Your task to perform on an android device: install app "eBay: The shopping marketplace" Image 0: 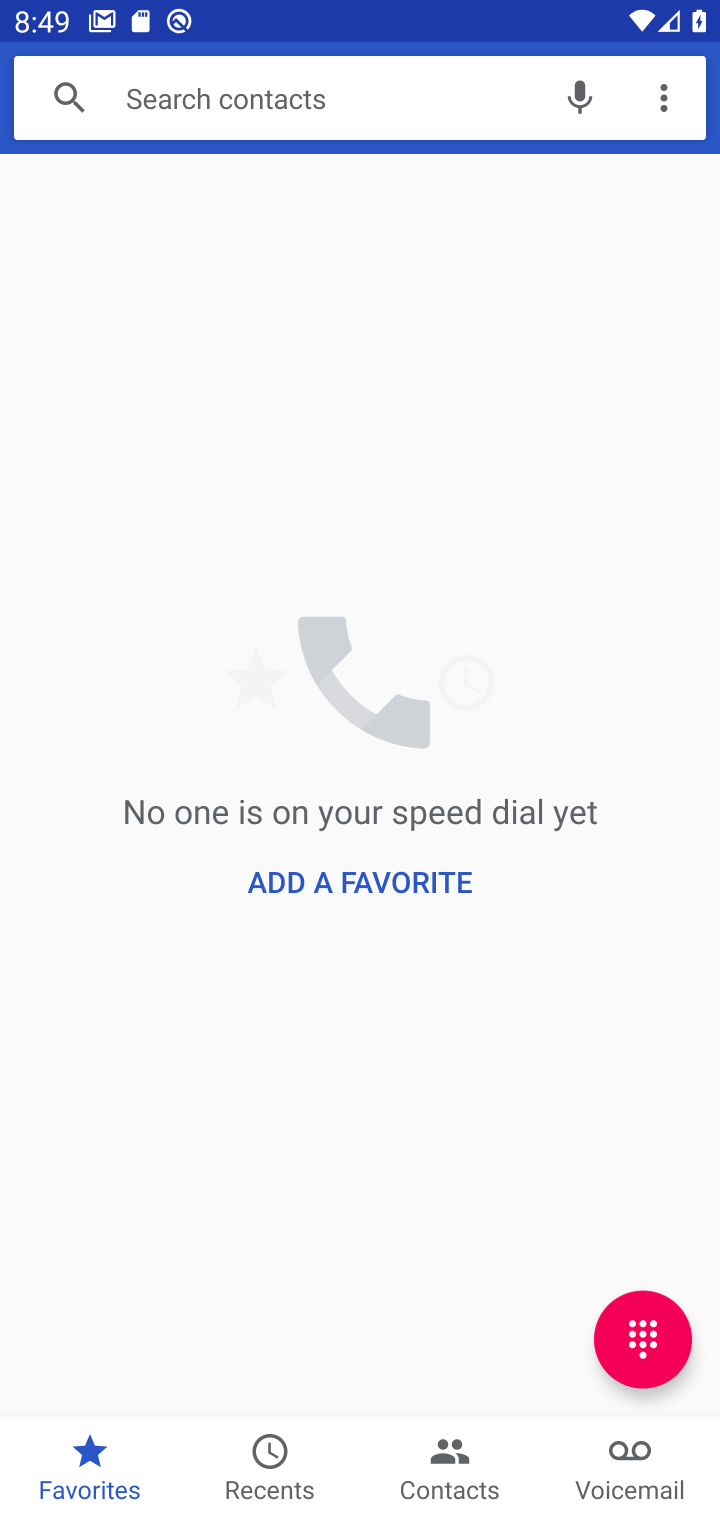
Step 0: press home button
Your task to perform on an android device: install app "eBay: The shopping marketplace" Image 1: 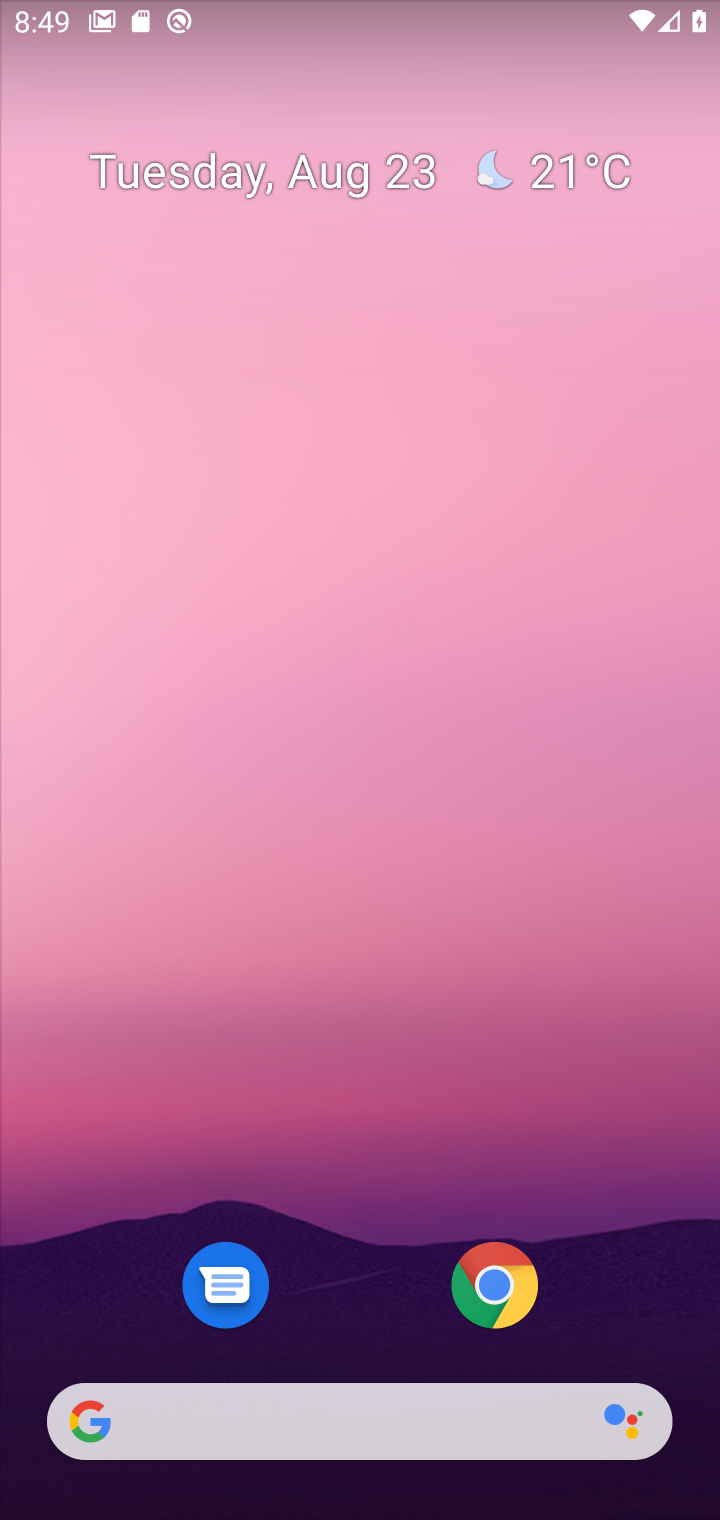
Step 1: drag from (651, 1324) to (559, 217)
Your task to perform on an android device: install app "eBay: The shopping marketplace" Image 2: 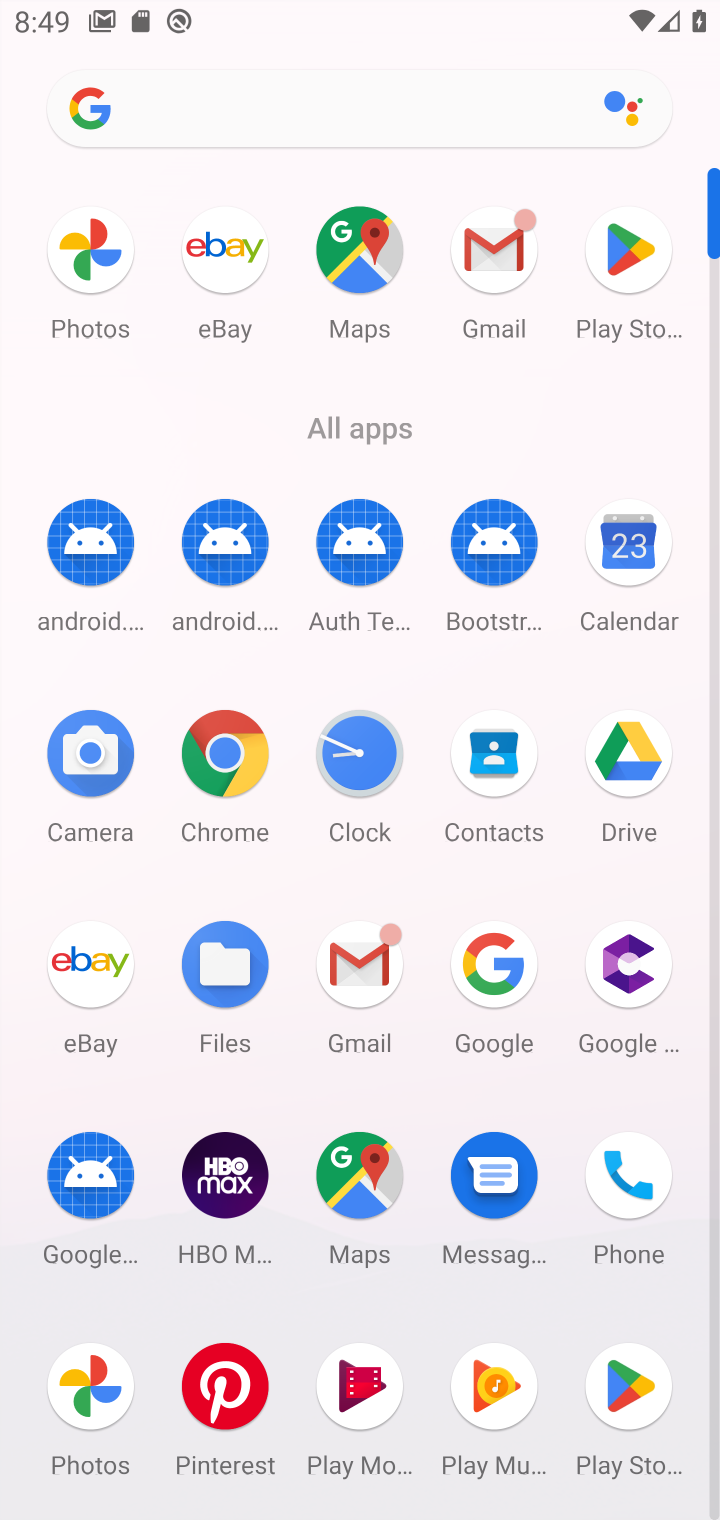
Step 2: click (630, 1383)
Your task to perform on an android device: install app "eBay: The shopping marketplace" Image 3: 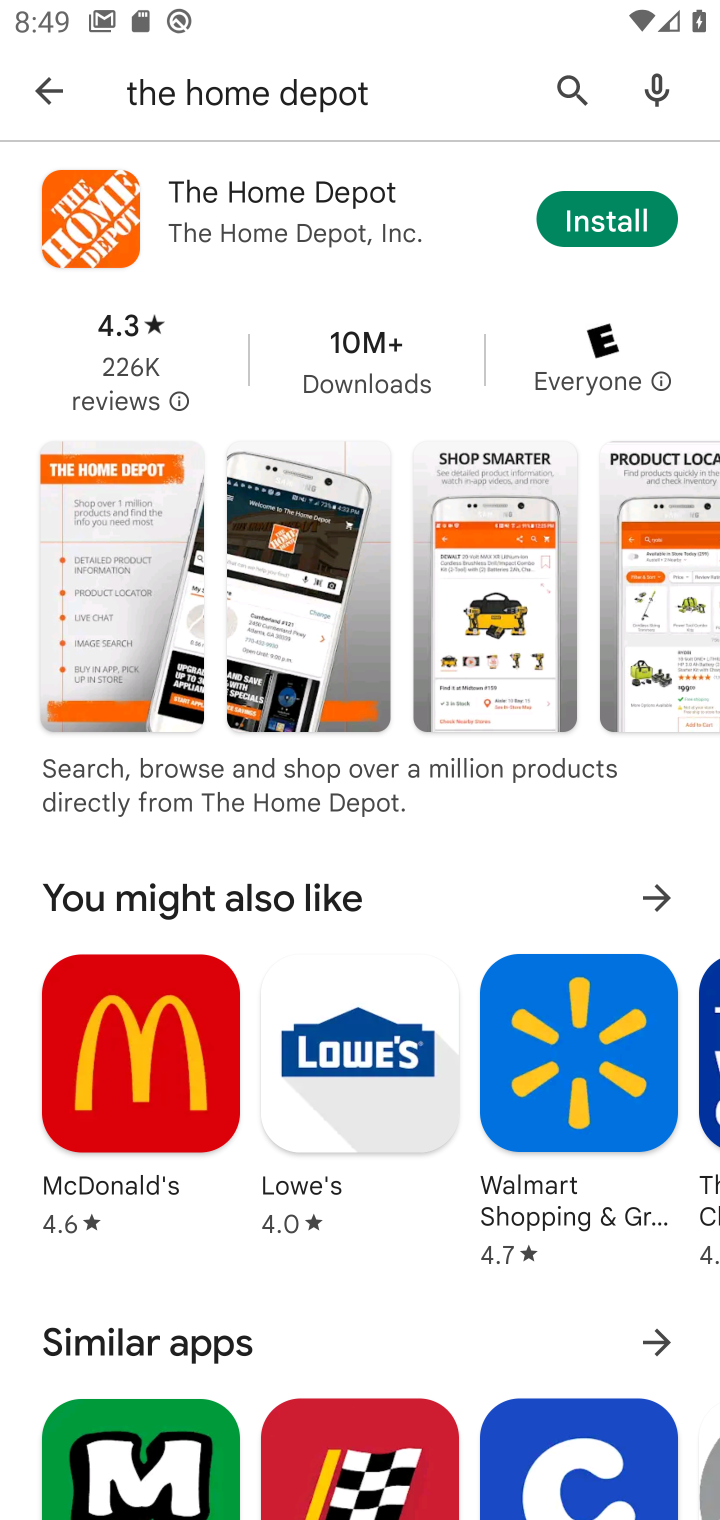
Step 3: click (566, 82)
Your task to perform on an android device: install app "eBay: The shopping marketplace" Image 4: 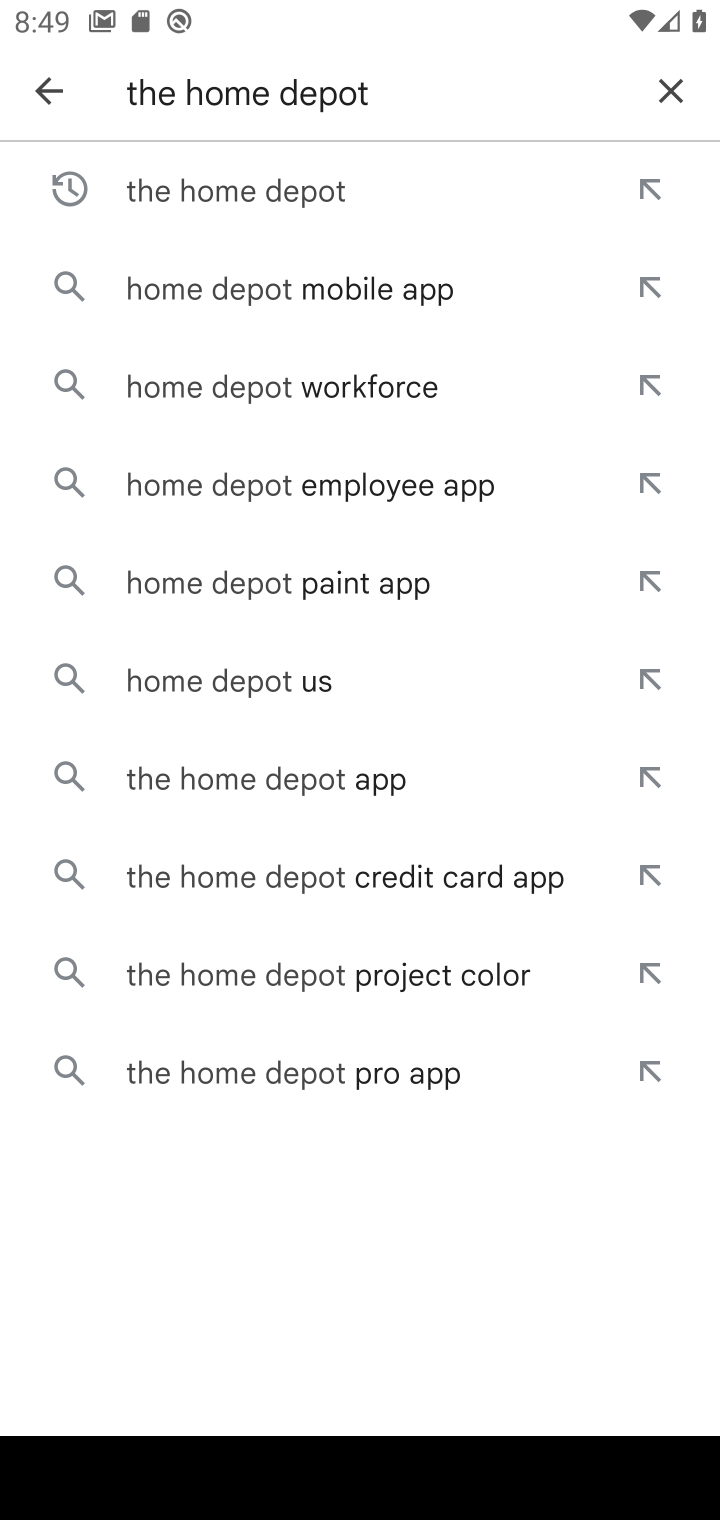
Step 4: click (669, 78)
Your task to perform on an android device: install app "eBay: The shopping marketplace" Image 5: 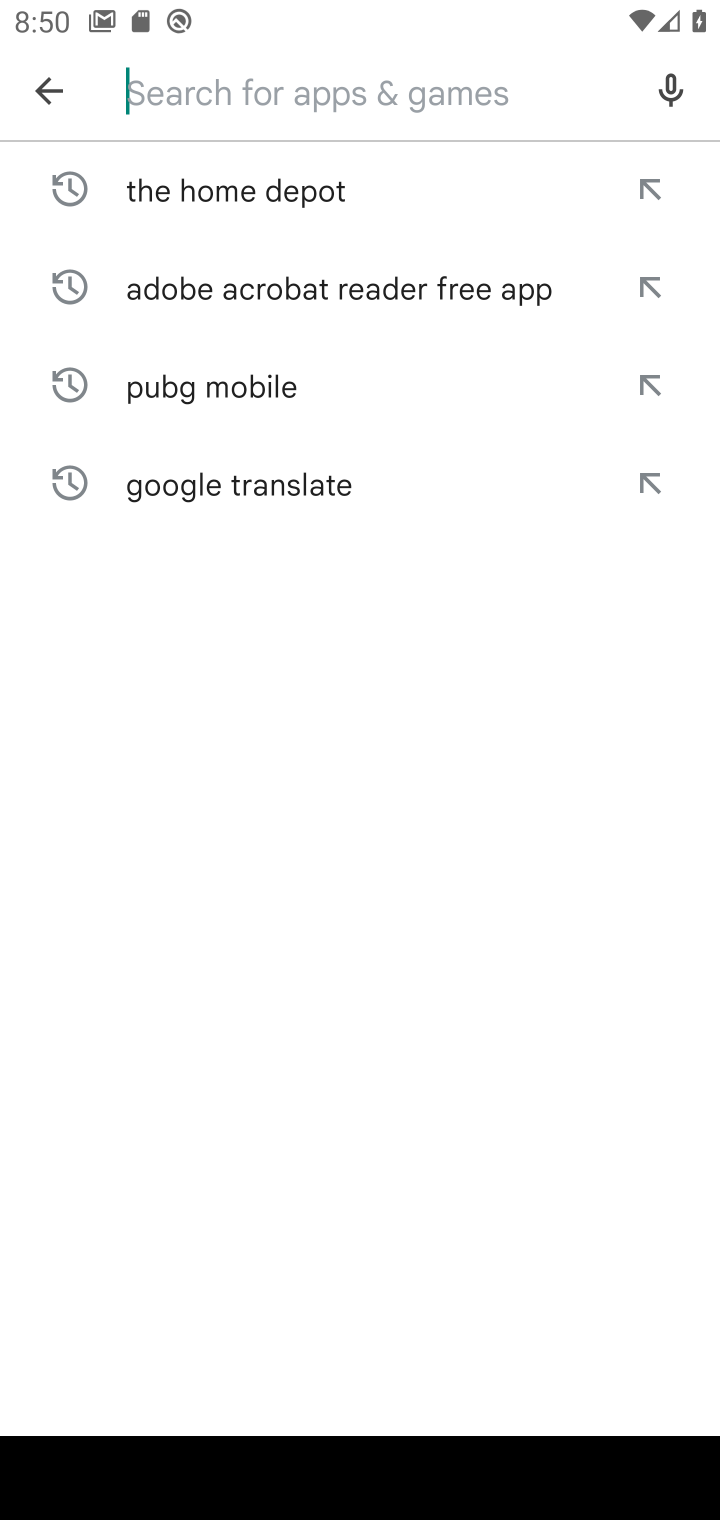
Step 5: type "eBay: The shopping marketplace"
Your task to perform on an android device: install app "eBay: The shopping marketplace" Image 6: 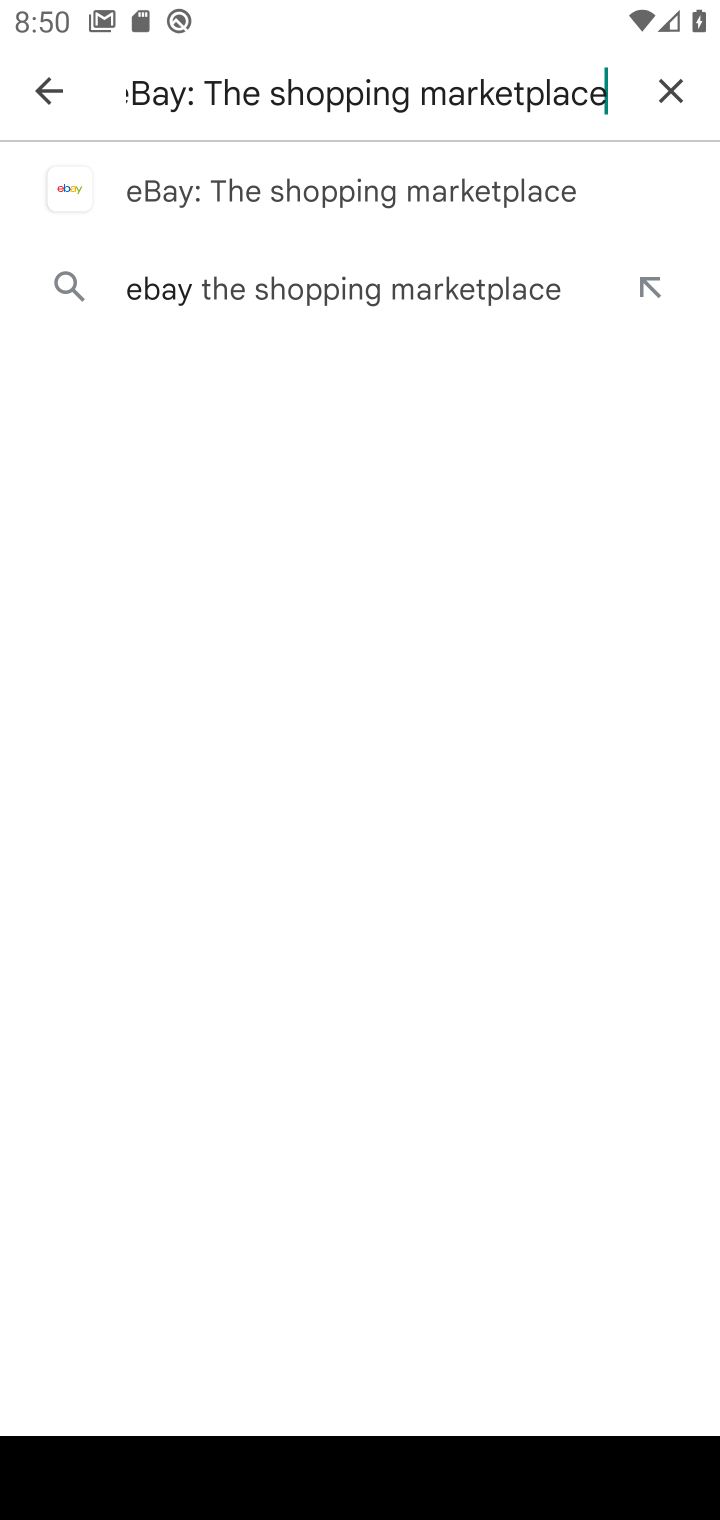
Step 6: click (216, 199)
Your task to perform on an android device: install app "eBay: The shopping marketplace" Image 7: 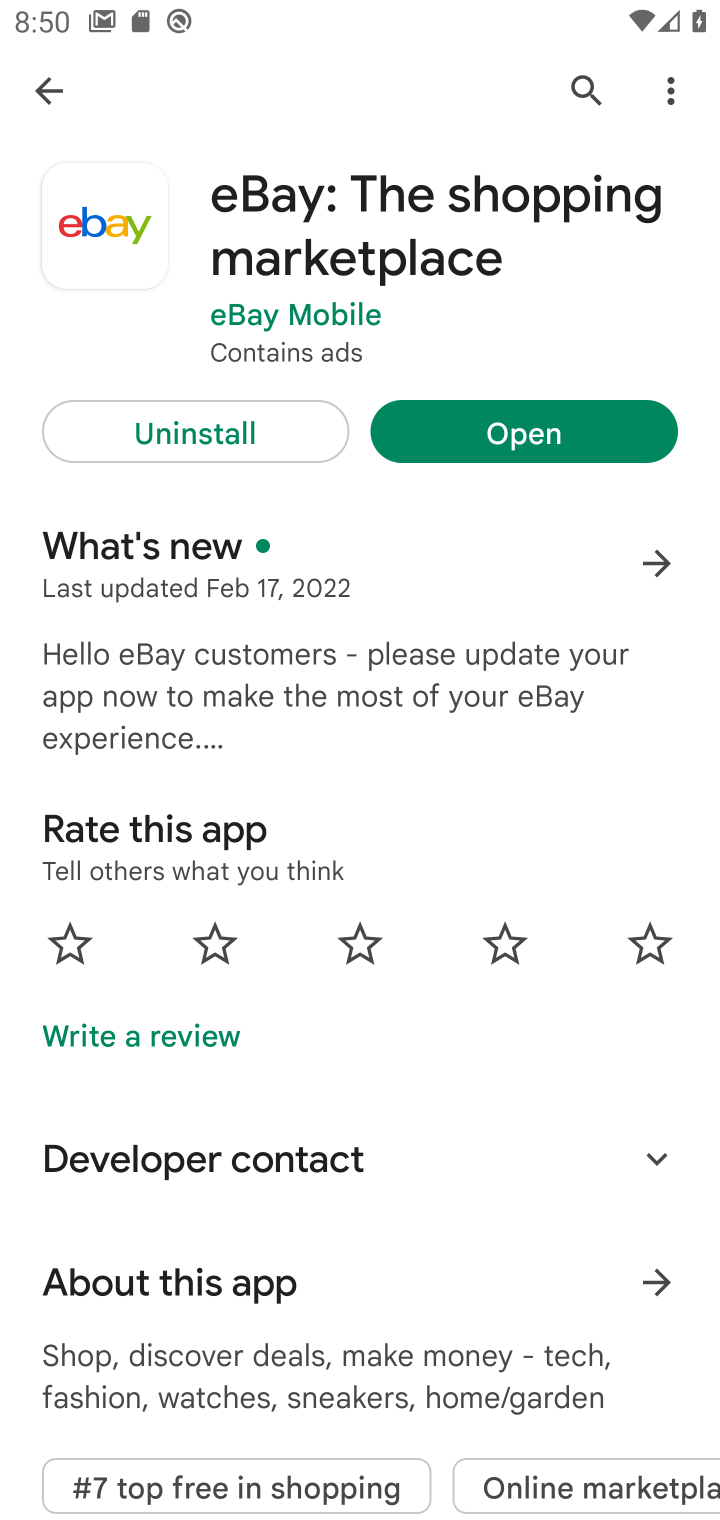
Step 7: task complete